Your task to perform on an android device: Open battery settings Image 0: 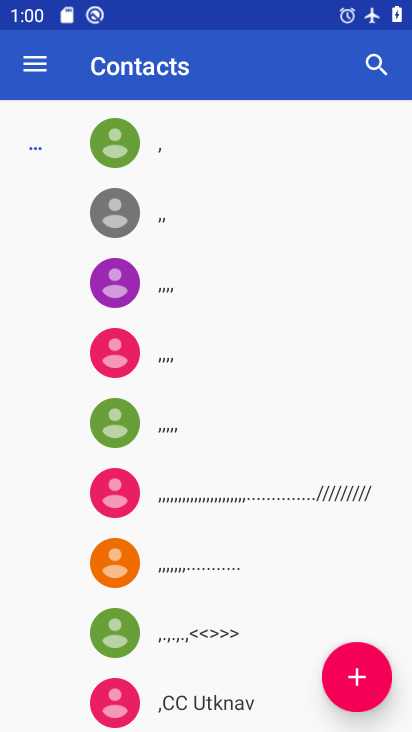
Step 0: press home button
Your task to perform on an android device: Open battery settings Image 1: 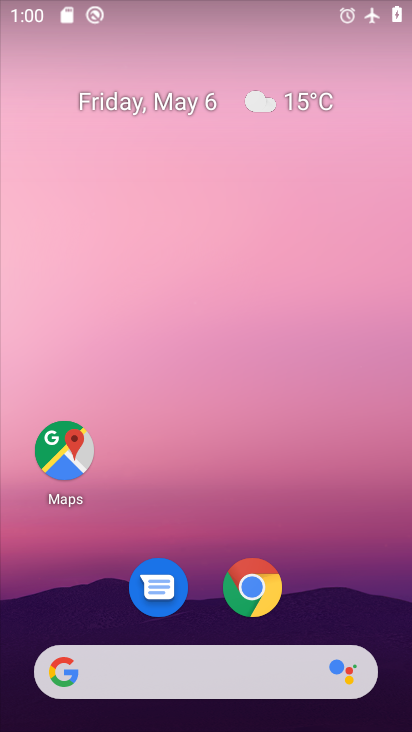
Step 1: drag from (298, 457) to (237, 73)
Your task to perform on an android device: Open battery settings Image 2: 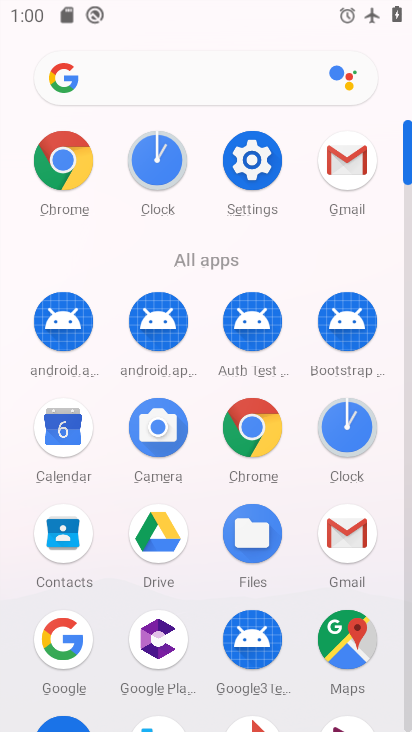
Step 2: click (247, 165)
Your task to perform on an android device: Open battery settings Image 3: 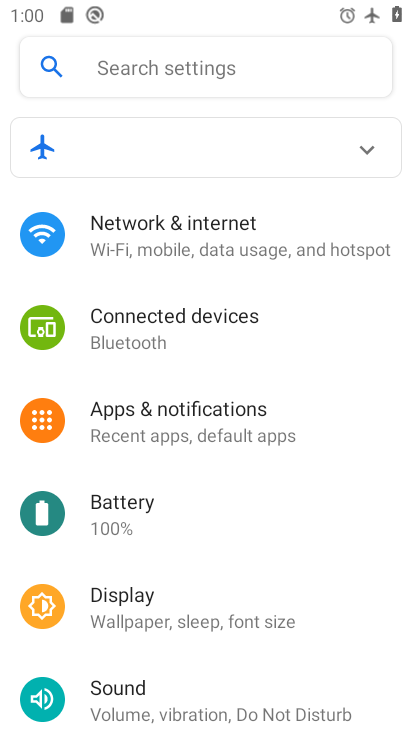
Step 3: click (134, 516)
Your task to perform on an android device: Open battery settings Image 4: 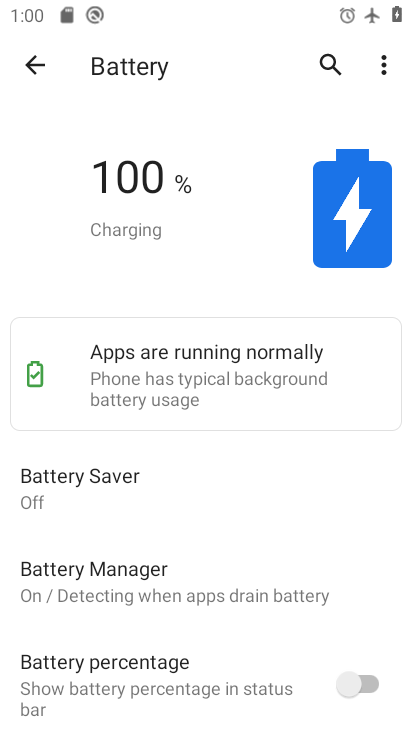
Step 4: task complete